Your task to perform on an android device: check storage Image 0: 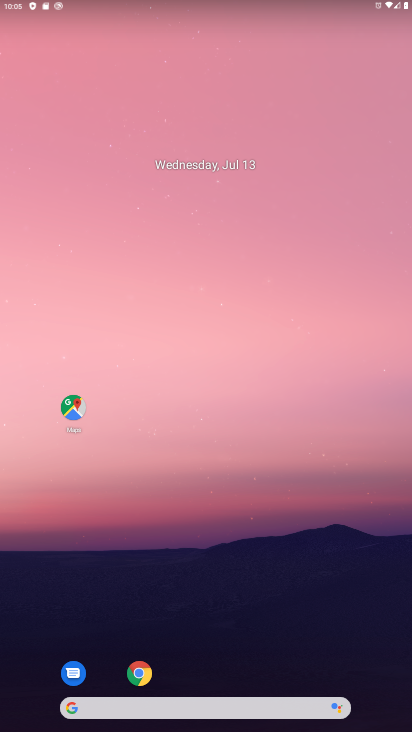
Step 0: drag from (176, 691) to (183, 293)
Your task to perform on an android device: check storage Image 1: 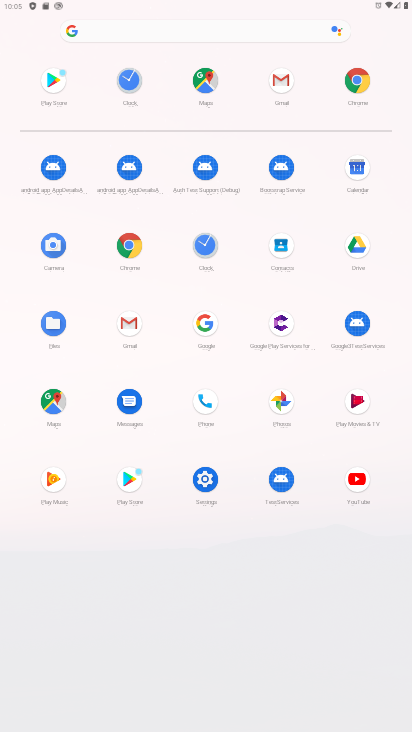
Step 1: click (208, 475)
Your task to perform on an android device: check storage Image 2: 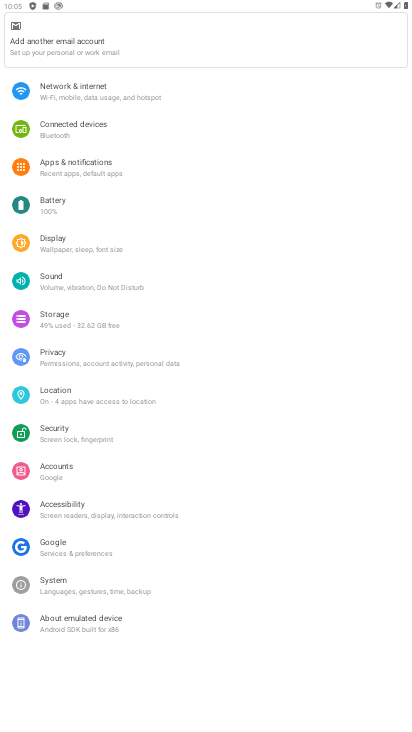
Step 2: click (65, 319)
Your task to perform on an android device: check storage Image 3: 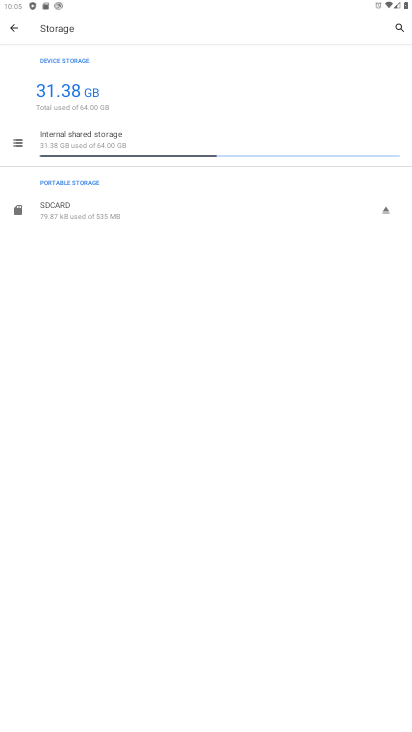
Step 3: task complete